Your task to perform on an android device: Go to settings Image 0: 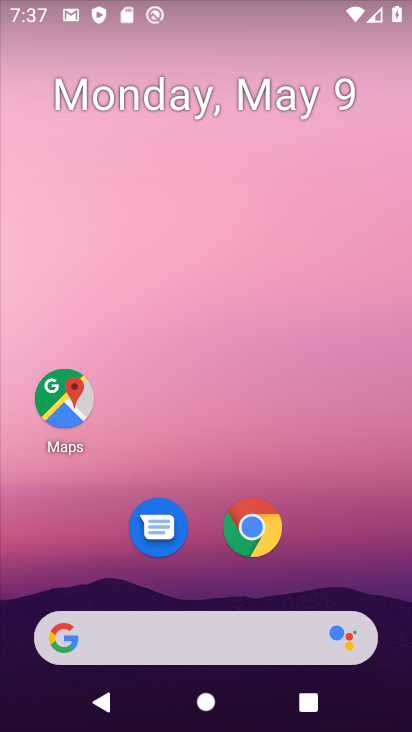
Step 0: drag from (227, 604) to (252, 116)
Your task to perform on an android device: Go to settings Image 1: 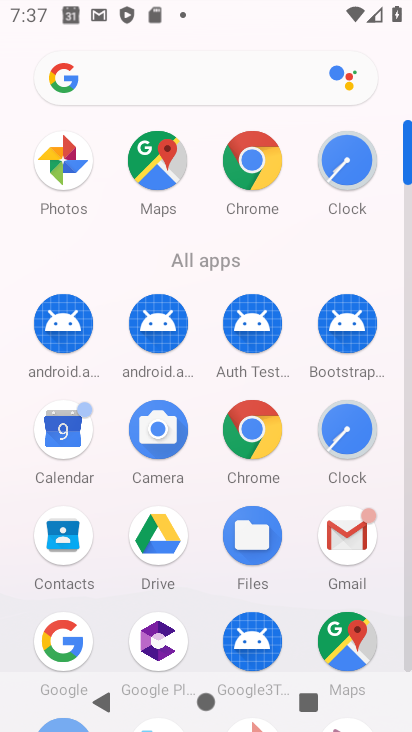
Step 1: drag from (263, 534) to (268, 241)
Your task to perform on an android device: Go to settings Image 2: 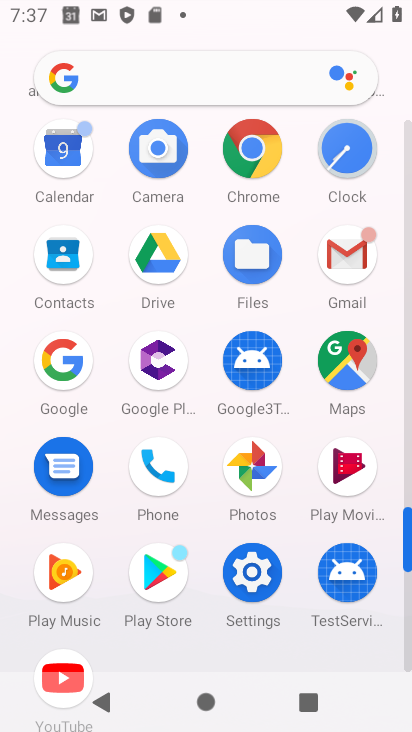
Step 2: click (259, 585)
Your task to perform on an android device: Go to settings Image 3: 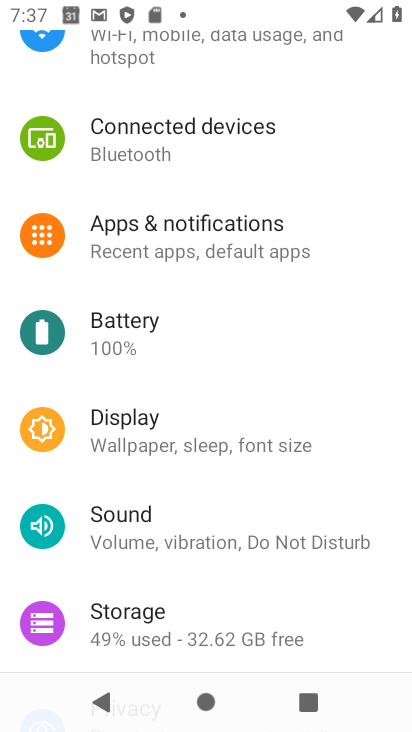
Step 3: task complete